Your task to perform on an android device: check storage Image 0: 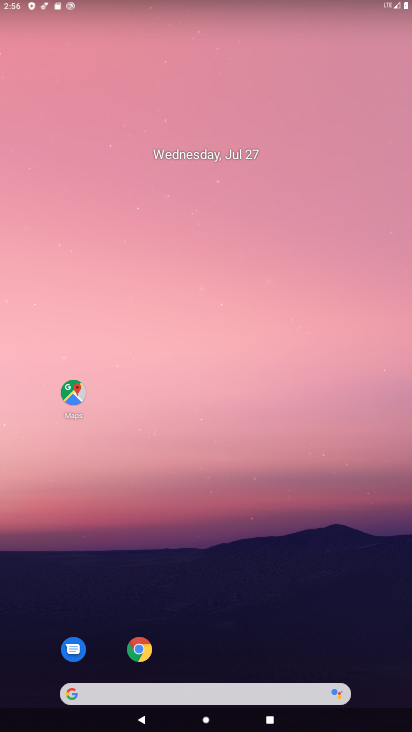
Step 0: press home button
Your task to perform on an android device: check storage Image 1: 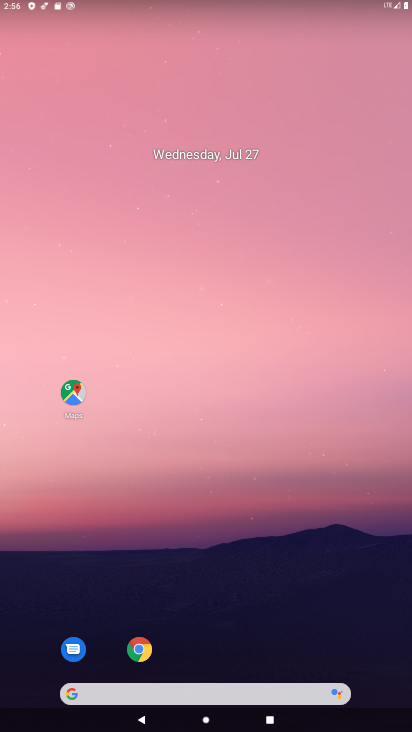
Step 1: drag from (318, 584) to (275, 122)
Your task to perform on an android device: check storage Image 2: 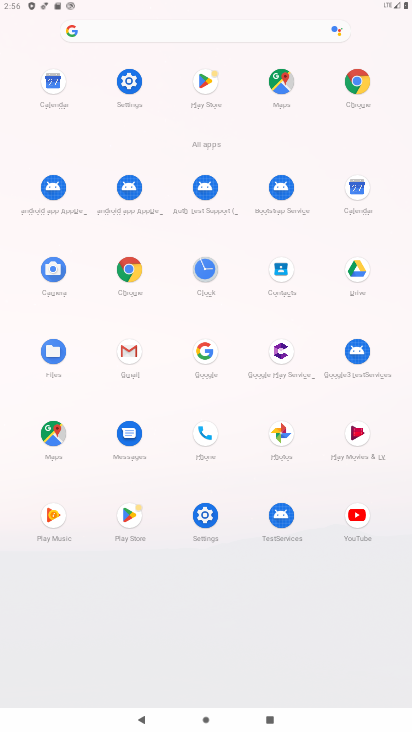
Step 2: click (201, 514)
Your task to perform on an android device: check storage Image 3: 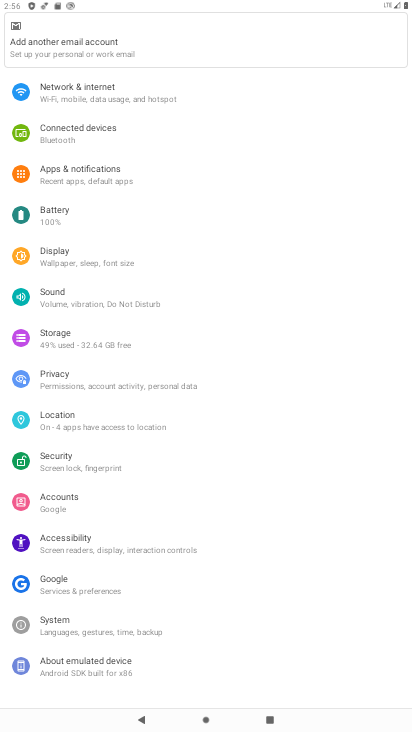
Step 3: click (68, 339)
Your task to perform on an android device: check storage Image 4: 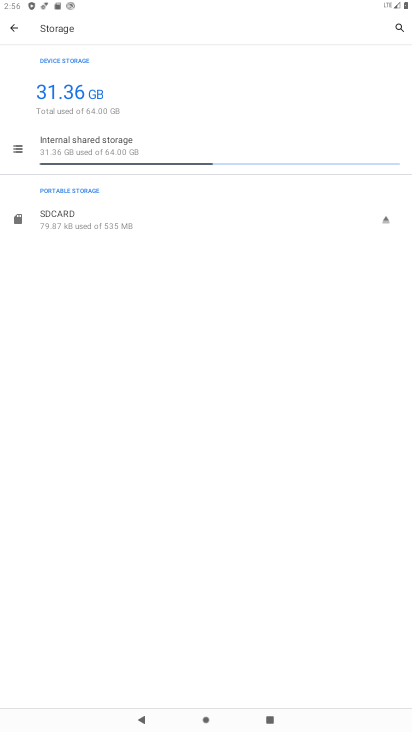
Step 4: task complete